Your task to perform on an android device: open the mobile data screen to see how much data has been used Image 0: 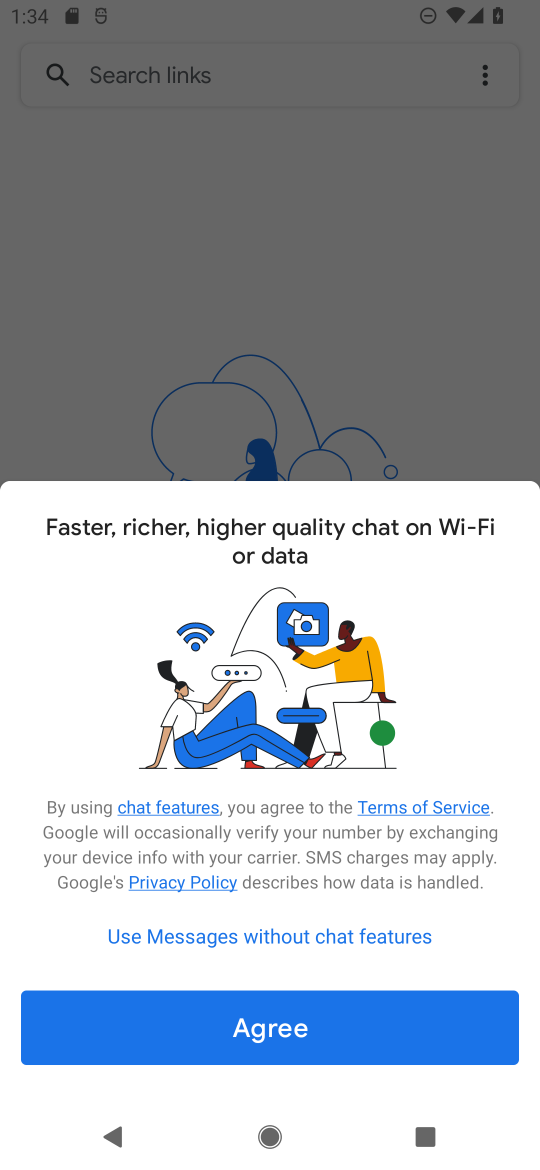
Step 0: press home button
Your task to perform on an android device: open the mobile data screen to see how much data has been used Image 1: 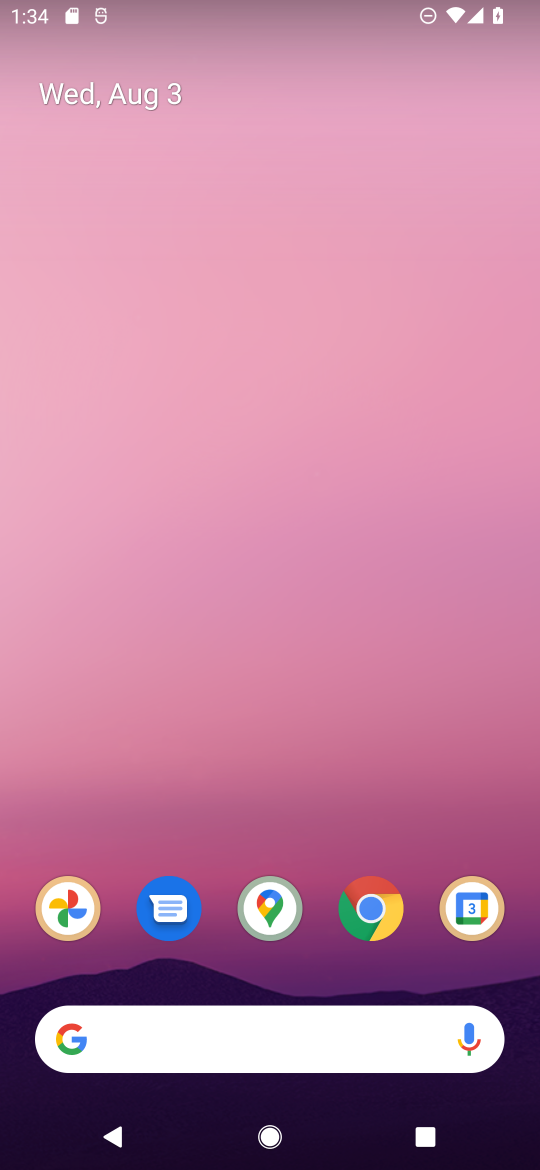
Step 1: drag from (249, 974) to (297, 254)
Your task to perform on an android device: open the mobile data screen to see how much data has been used Image 2: 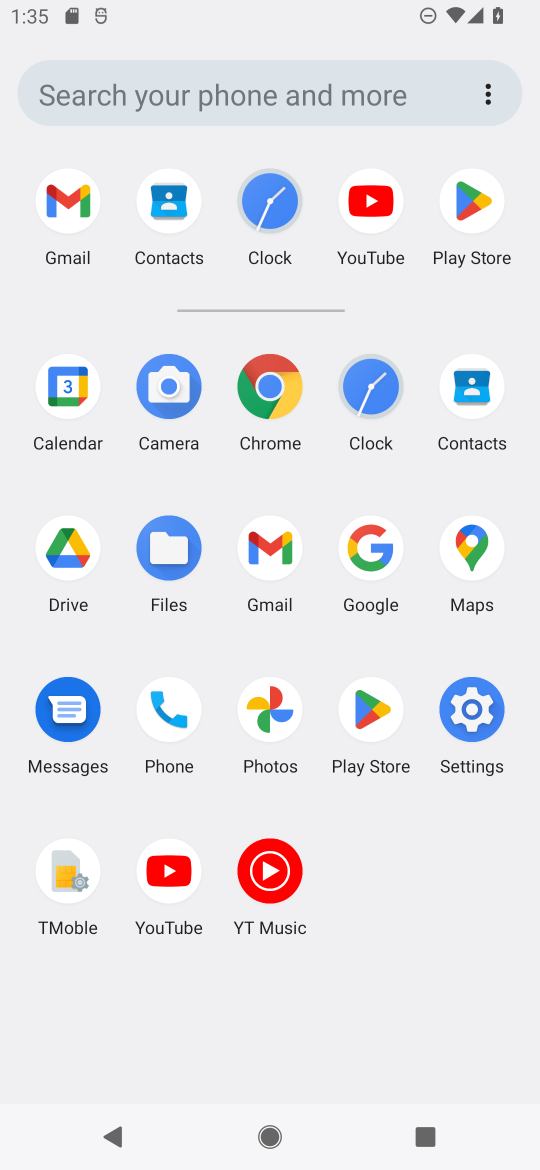
Step 2: click (483, 701)
Your task to perform on an android device: open the mobile data screen to see how much data has been used Image 3: 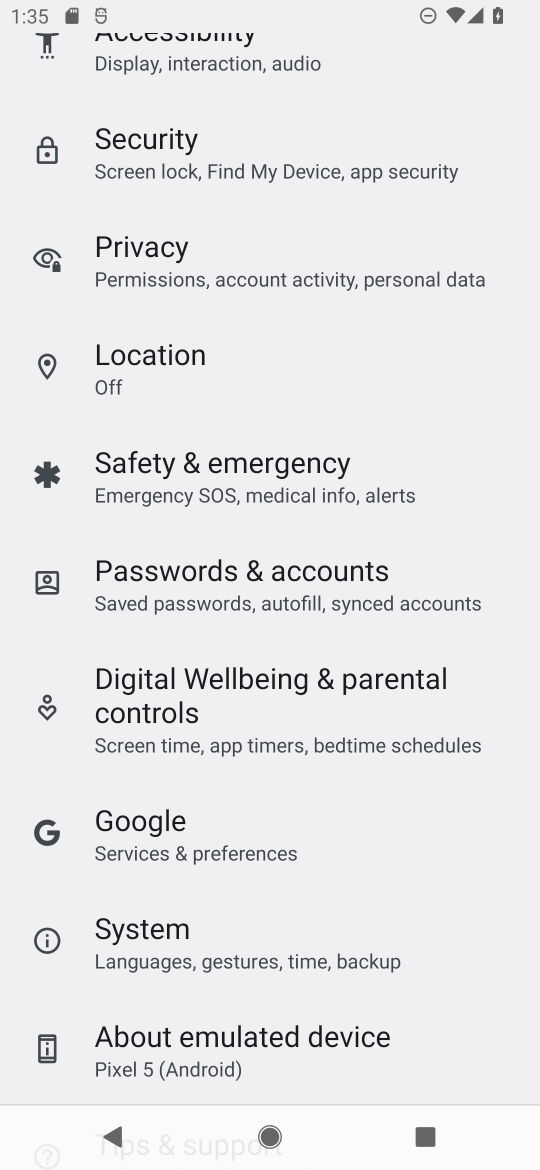
Step 3: drag from (341, 398) to (283, 1118)
Your task to perform on an android device: open the mobile data screen to see how much data has been used Image 4: 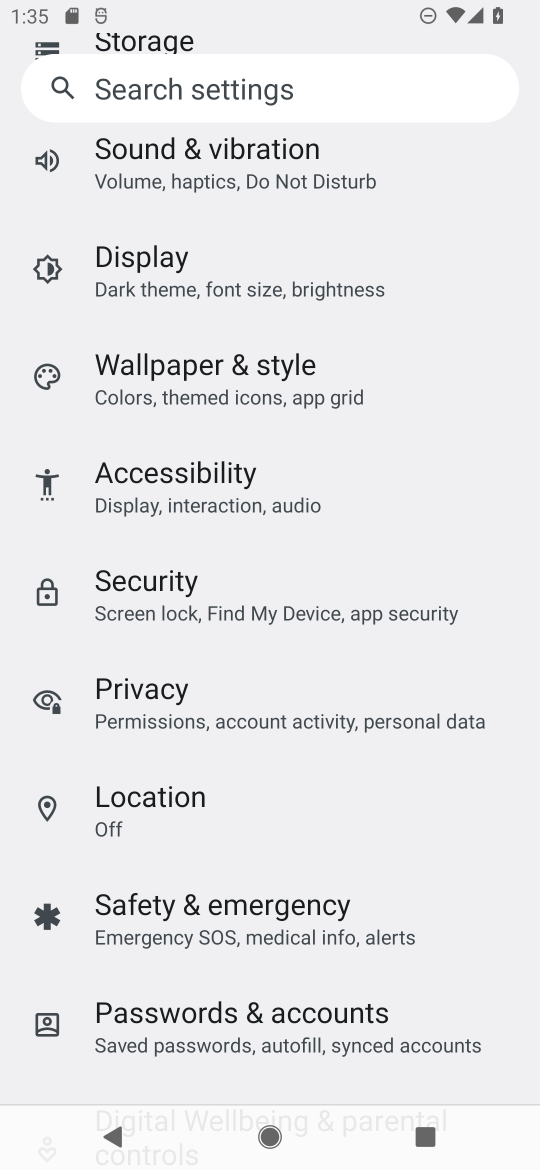
Step 4: drag from (327, 465) to (325, 958)
Your task to perform on an android device: open the mobile data screen to see how much data has been used Image 5: 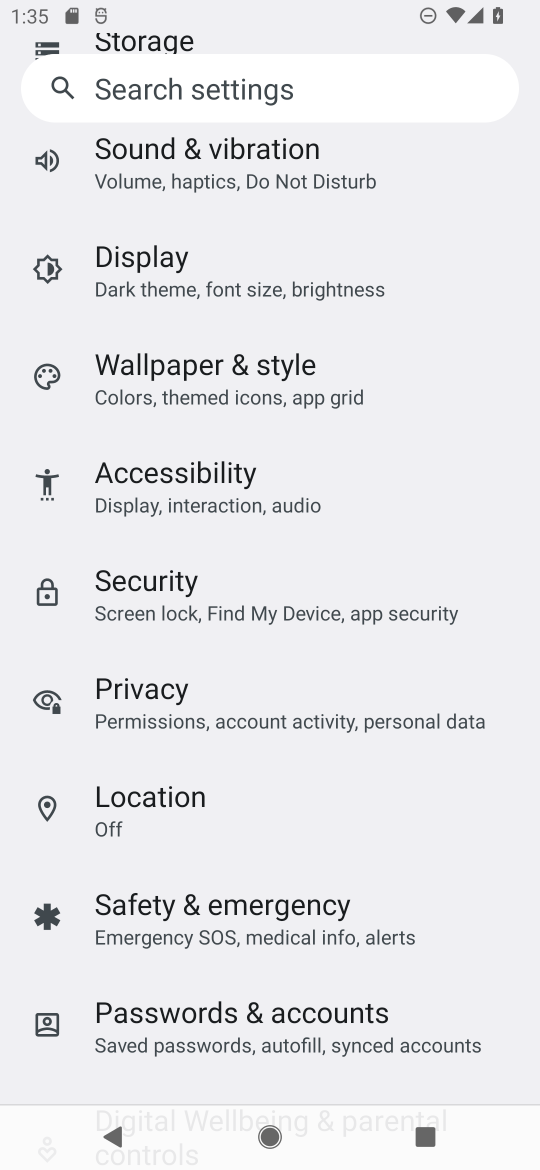
Step 5: drag from (237, 253) to (293, 1108)
Your task to perform on an android device: open the mobile data screen to see how much data has been used Image 6: 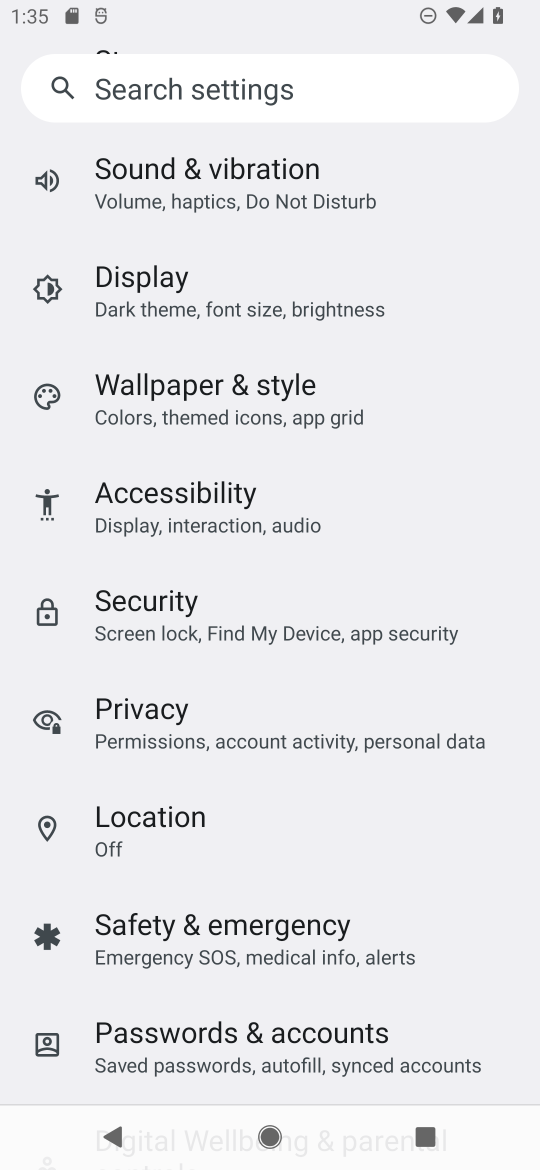
Step 6: drag from (341, 588) to (323, 873)
Your task to perform on an android device: open the mobile data screen to see how much data has been used Image 7: 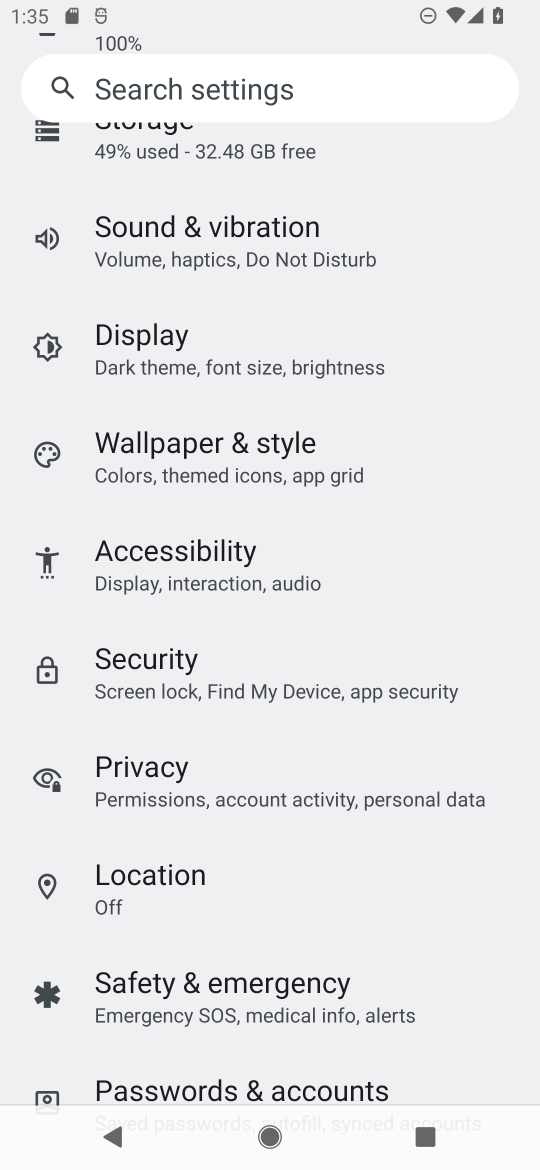
Step 7: drag from (208, 1060) to (243, 1121)
Your task to perform on an android device: open the mobile data screen to see how much data has been used Image 8: 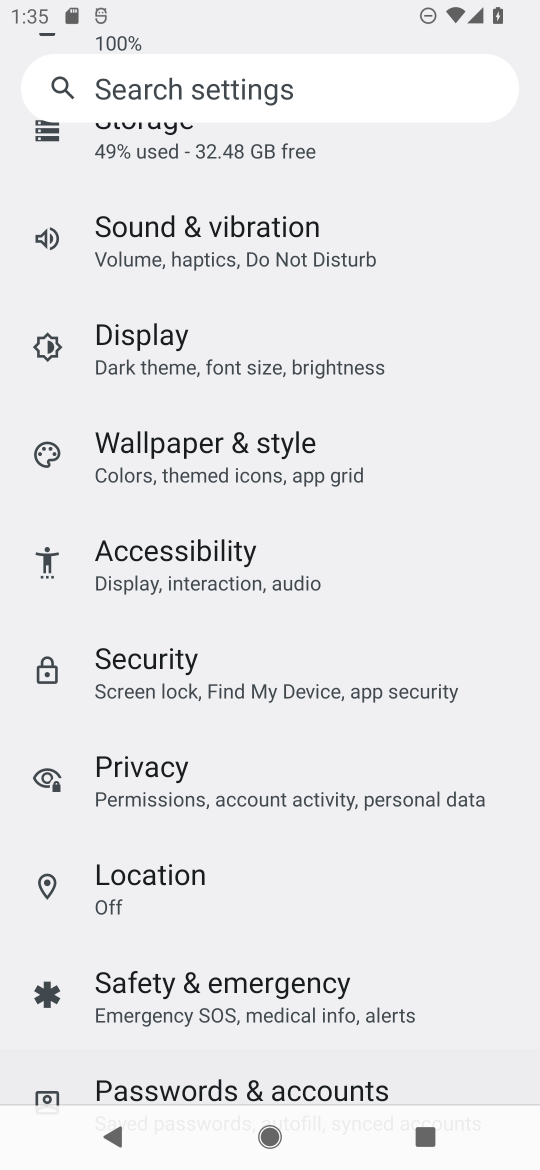
Step 8: drag from (260, 623) to (260, 787)
Your task to perform on an android device: open the mobile data screen to see how much data has been used Image 9: 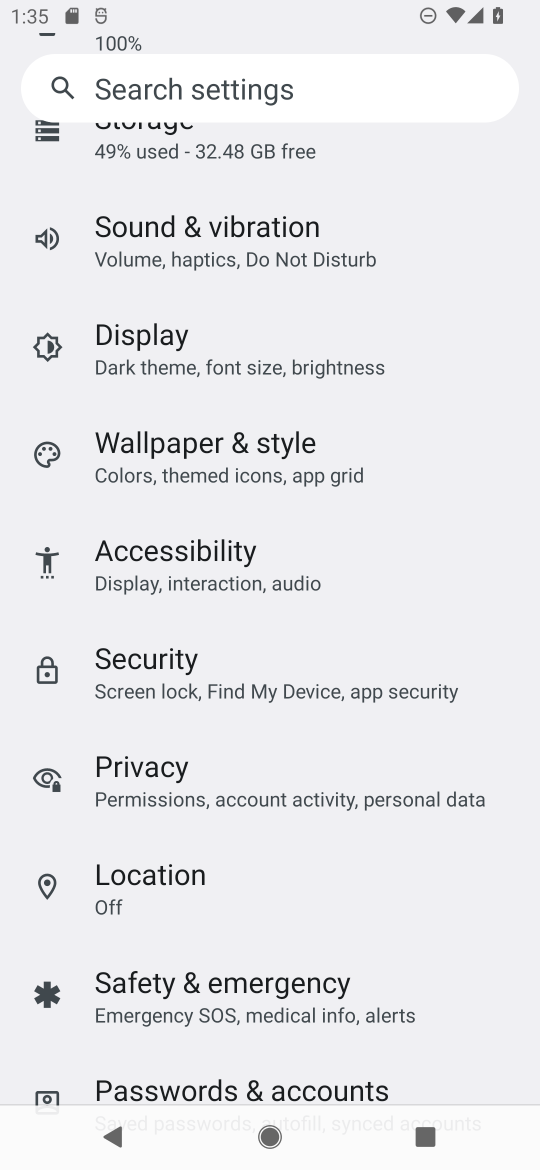
Step 9: drag from (368, 221) to (320, 691)
Your task to perform on an android device: open the mobile data screen to see how much data has been used Image 10: 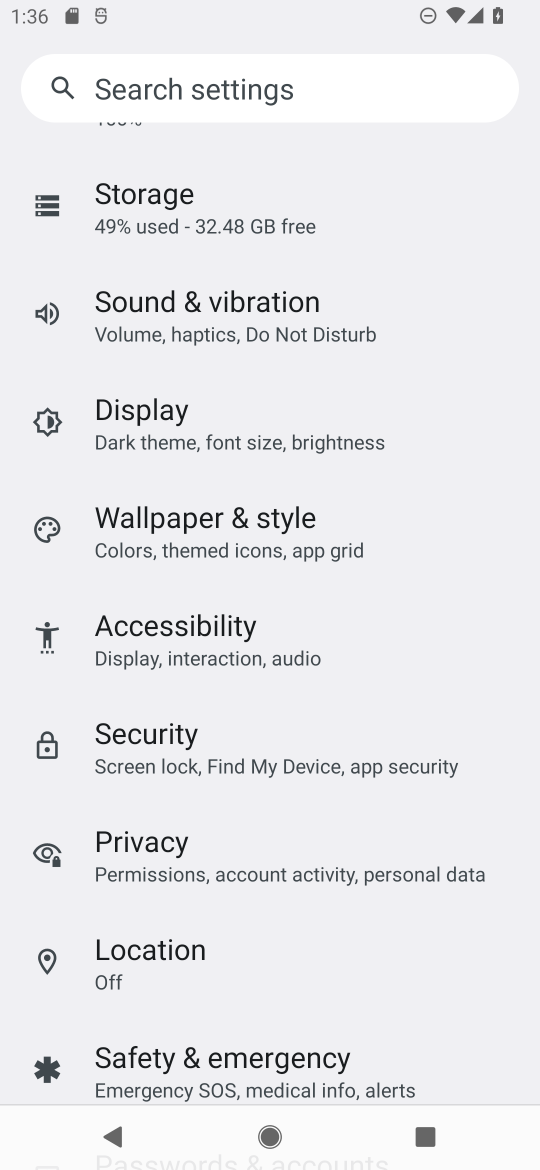
Step 10: drag from (262, 630) to (220, 1123)
Your task to perform on an android device: open the mobile data screen to see how much data has been used Image 11: 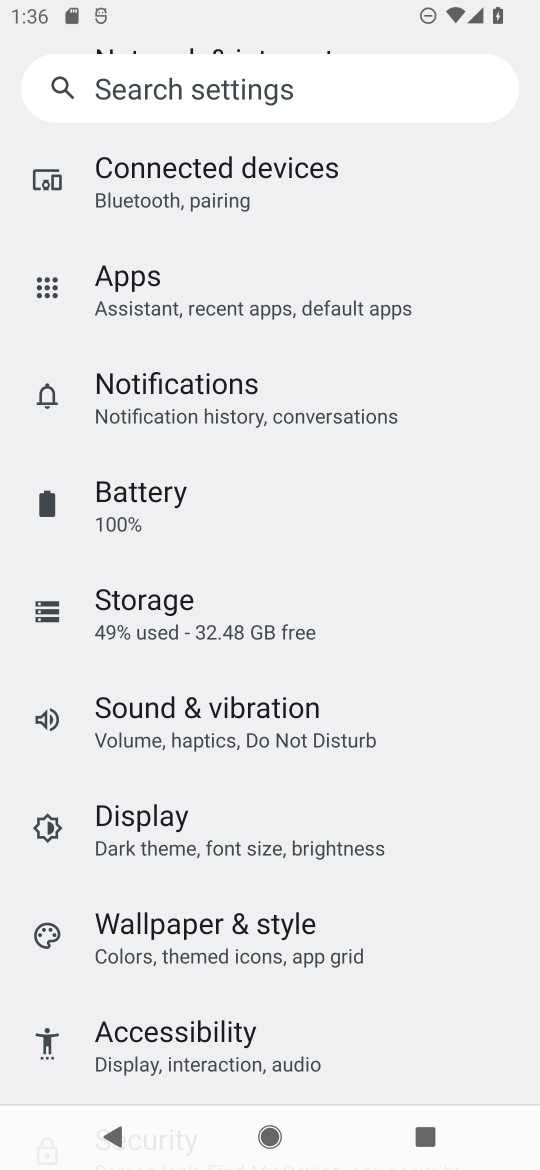
Step 11: drag from (292, 351) to (278, 1095)
Your task to perform on an android device: open the mobile data screen to see how much data has been used Image 12: 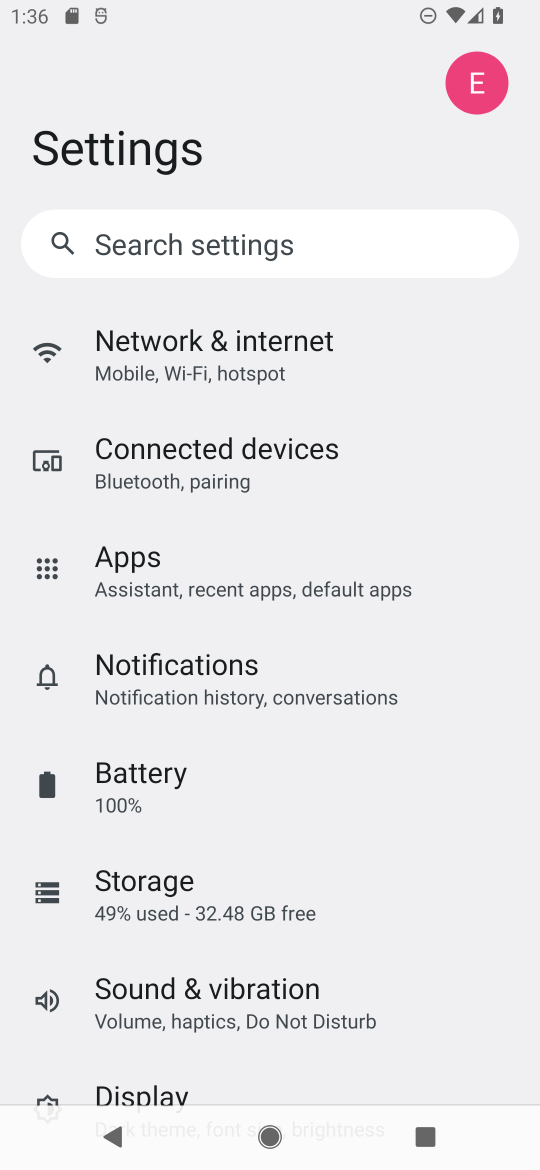
Step 12: click (242, 337)
Your task to perform on an android device: open the mobile data screen to see how much data has been used Image 13: 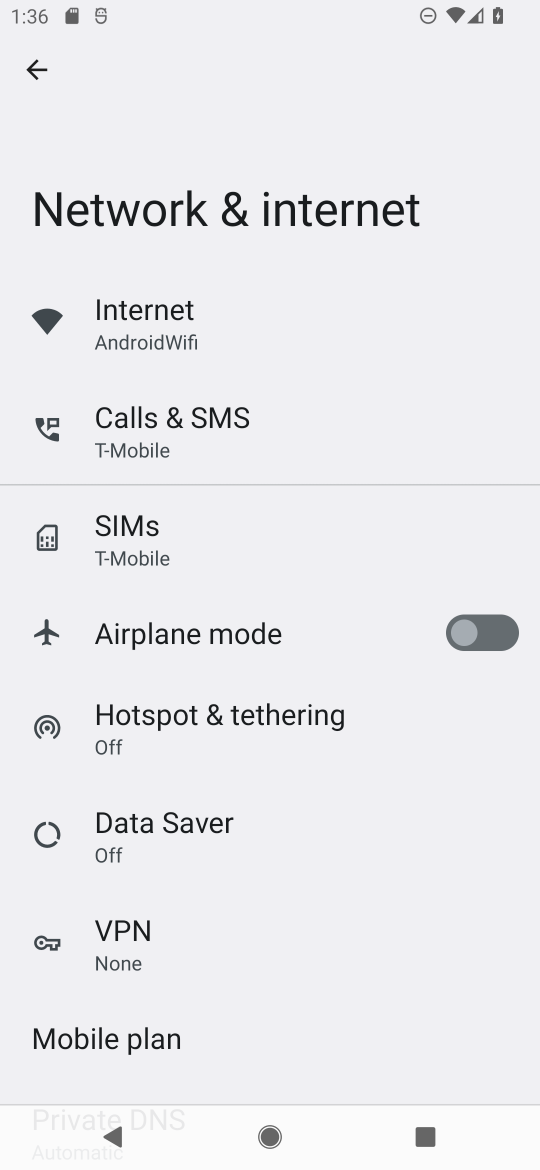
Step 13: click (168, 335)
Your task to perform on an android device: open the mobile data screen to see how much data has been used Image 14: 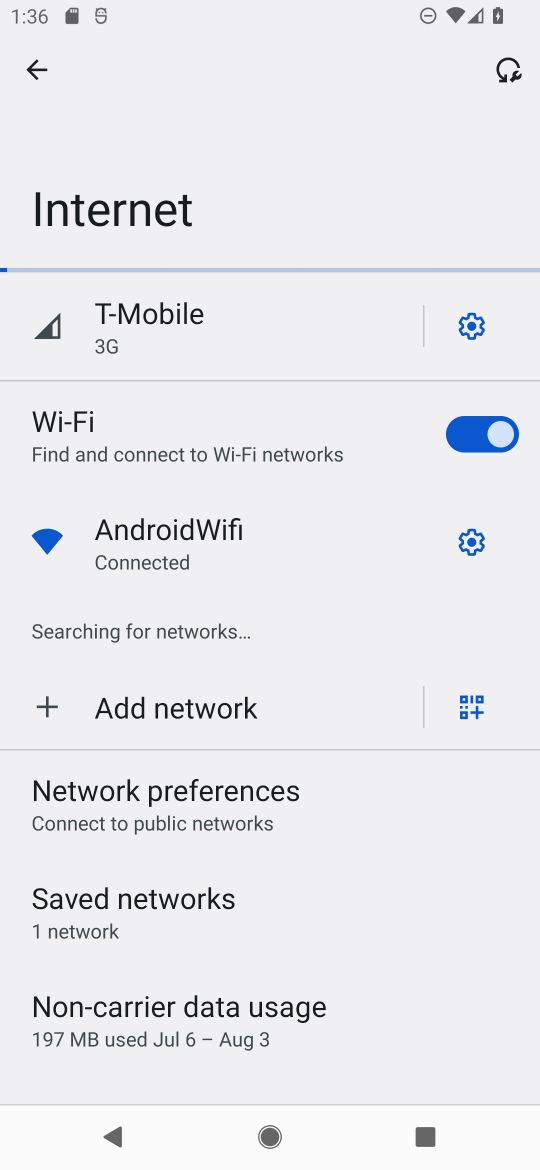
Step 14: click (201, 328)
Your task to perform on an android device: open the mobile data screen to see how much data has been used Image 15: 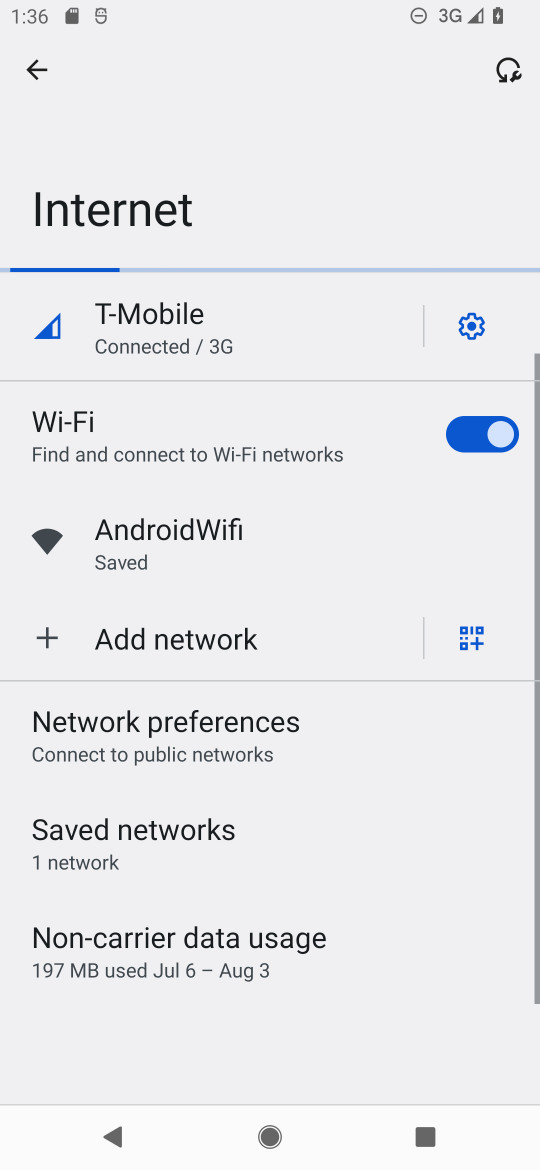
Step 15: drag from (249, 756) to (332, 484)
Your task to perform on an android device: open the mobile data screen to see how much data has been used Image 16: 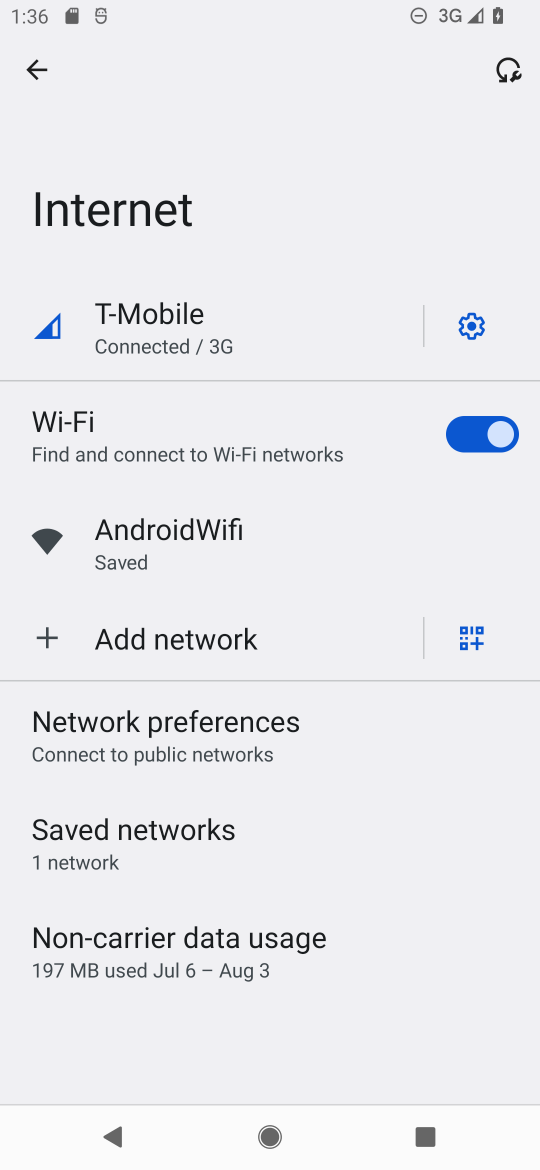
Step 16: click (226, 940)
Your task to perform on an android device: open the mobile data screen to see how much data has been used Image 17: 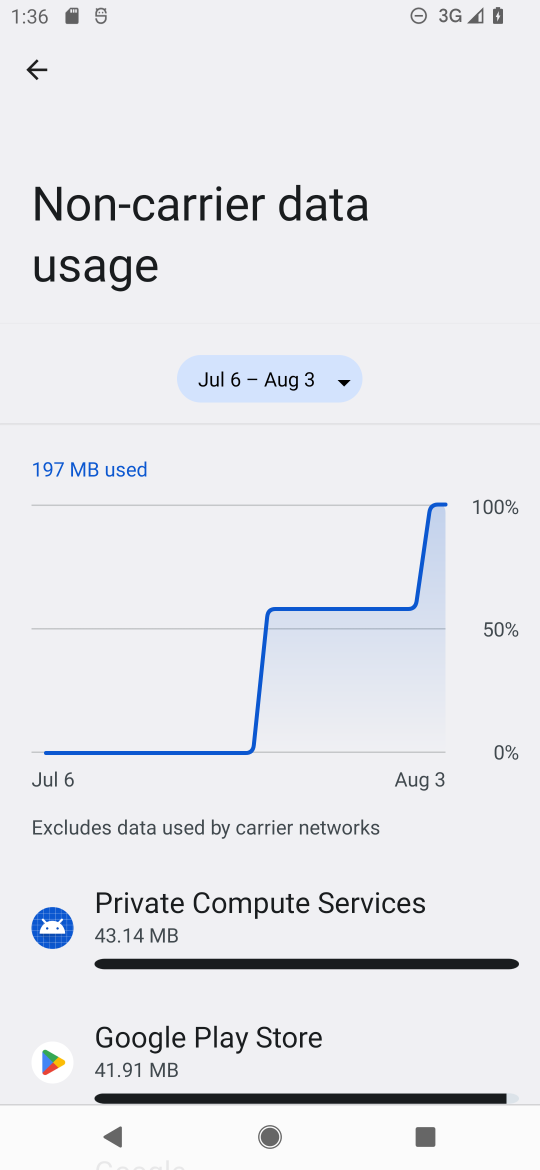
Step 17: task complete